Your task to perform on an android device: check android version Image 0: 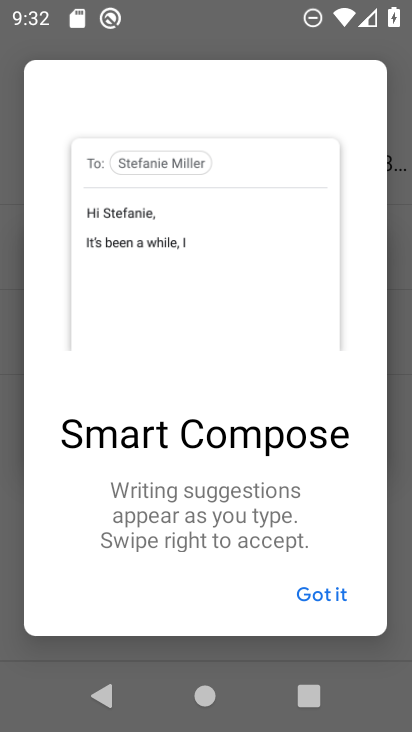
Step 0: press home button
Your task to perform on an android device: check android version Image 1: 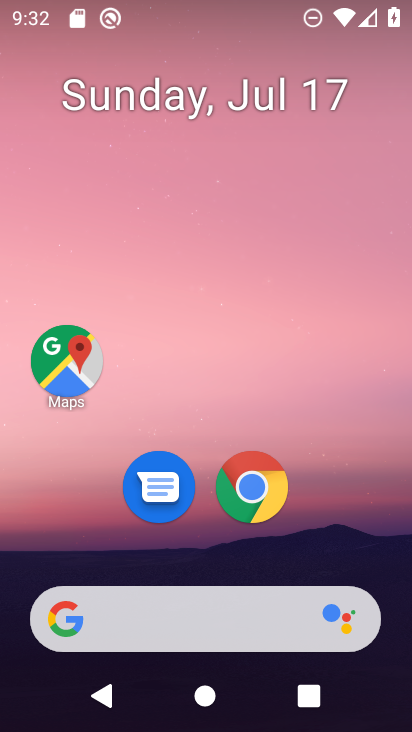
Step 1: drag from (318, 555) to (383, 56)
Your task to perform on an android device: check android version Image 2: 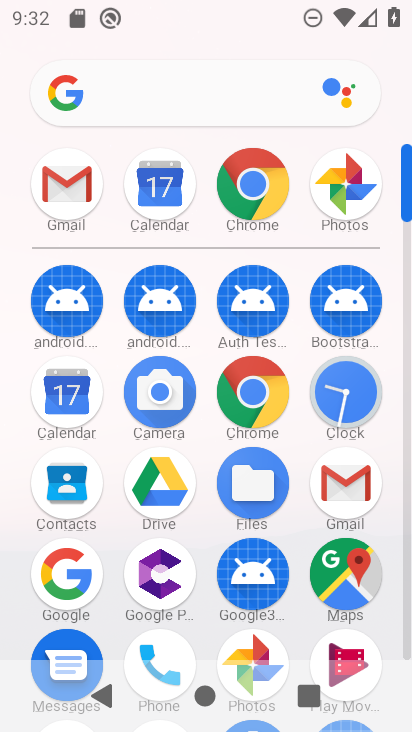
Step 2: drag from (395, 527) to (396, 10)
Your task to perform on an android device: check android version Image 3: 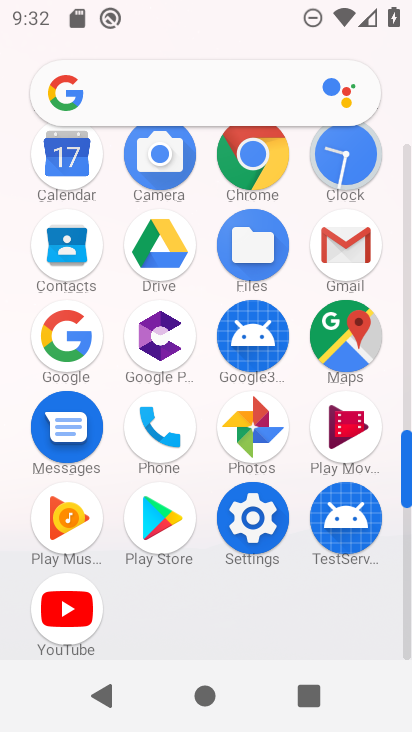
Step 3: click (257, 521)
Your task to perform on an android device: check android version Image 4: 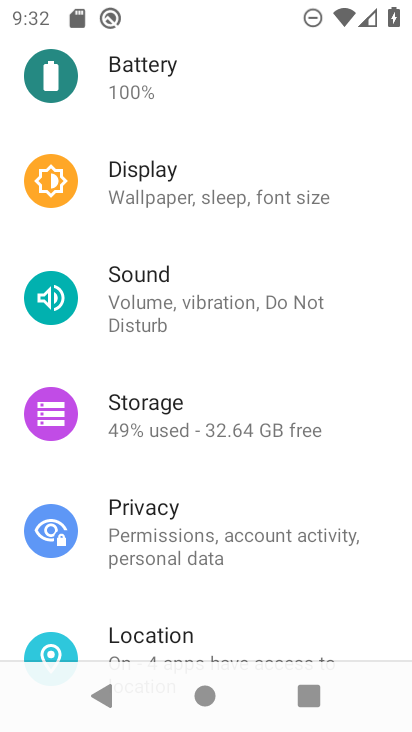
Step 4: drag from (260, 598) to (190, 6)
Your task to perform on an android device: check android version Image 5: 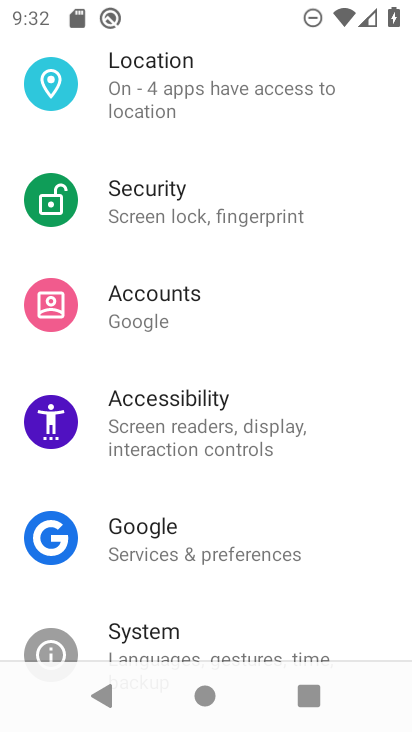
Step 5: drag from (313, 593) to (334, 12)
Your task to perform on an android device: check android version Image 6: 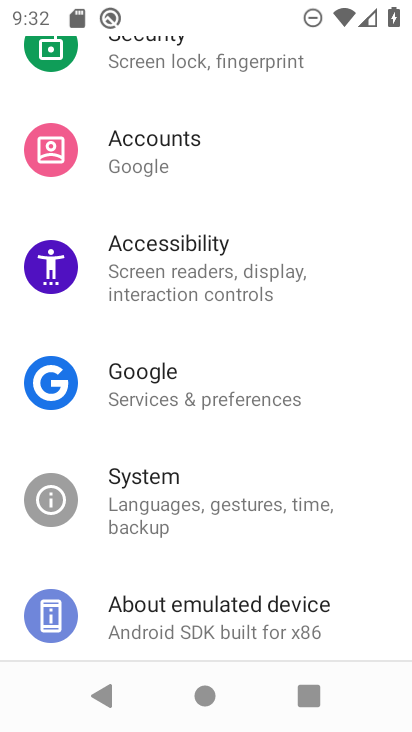
Step 6: click (190, 640)
Your task to perform on an android device: check android version Image 7: 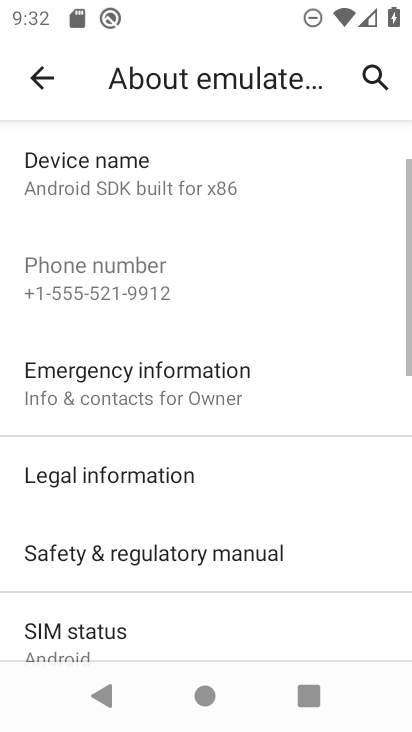
Step 7: task complete